Your task to perform on an android device: Go to location settings Image 0: 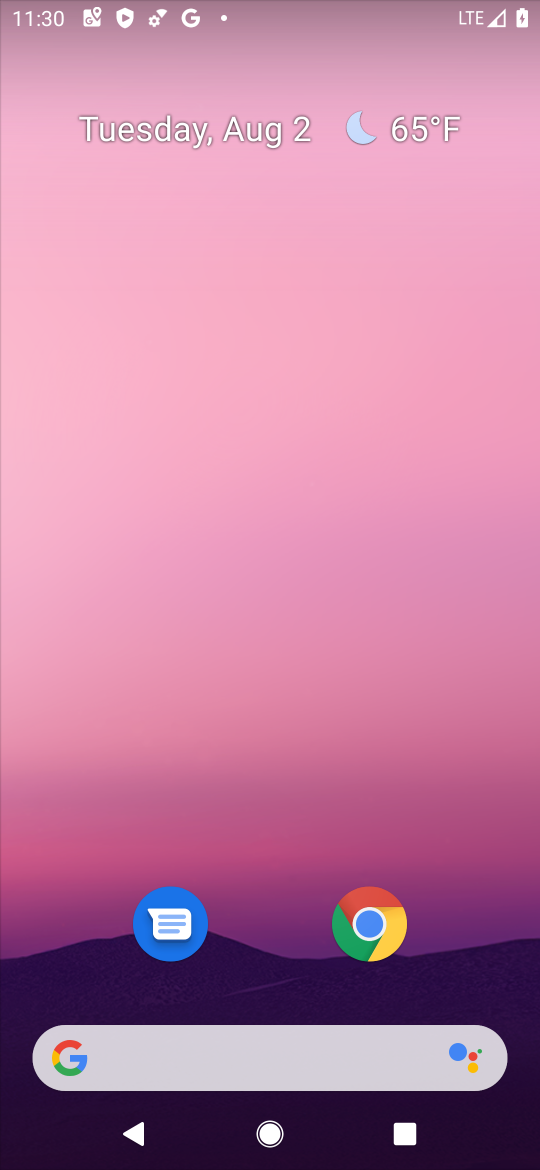
Step 0: drag from (192, 936) to (314, 310)
Your task to perform on an android device: Go to location settings Image 1: 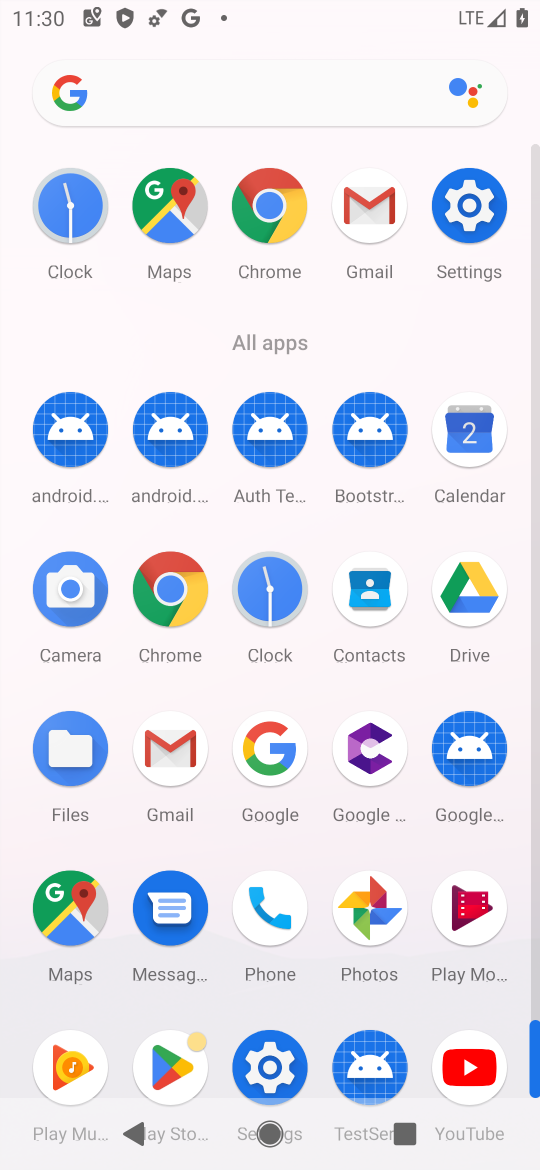
Step 1: click (450, 180)
Your task to perform on an android device: Go to location settings Image 2: 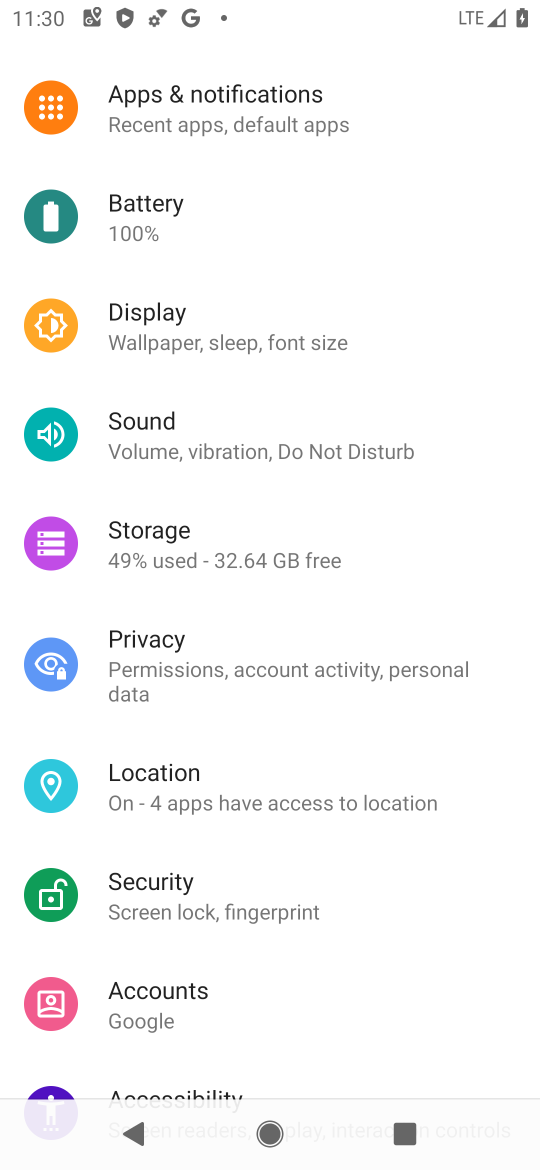
Step 2: click (227, 805)
Your task to perform on an android device: Go to location settings Image 3: 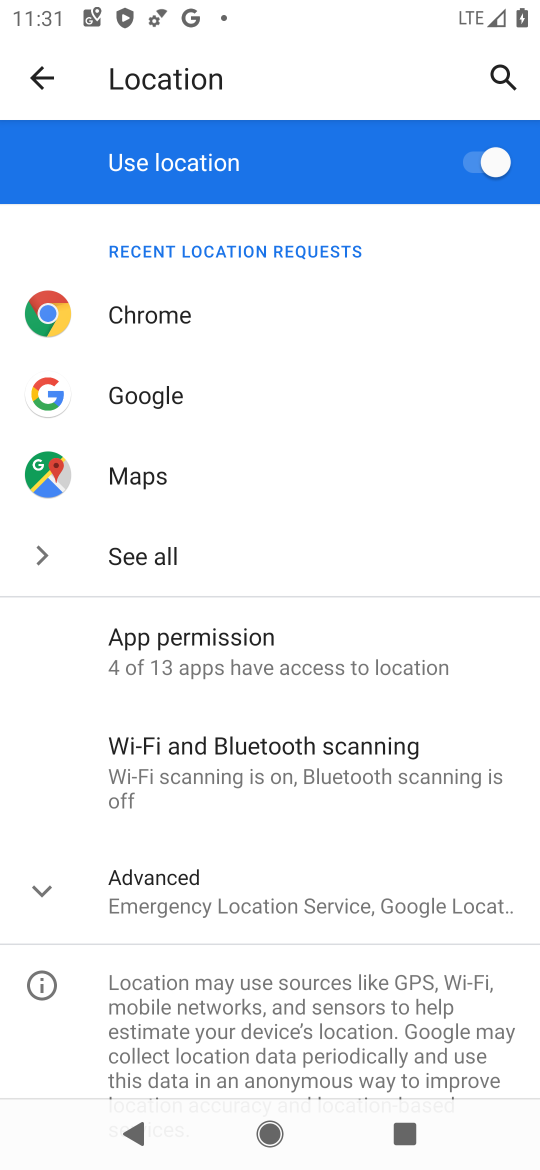
Step 3: task complete